Your task to perform on an android device: Open Google Chrome and click the shortcut for Amazon.com Image 0: 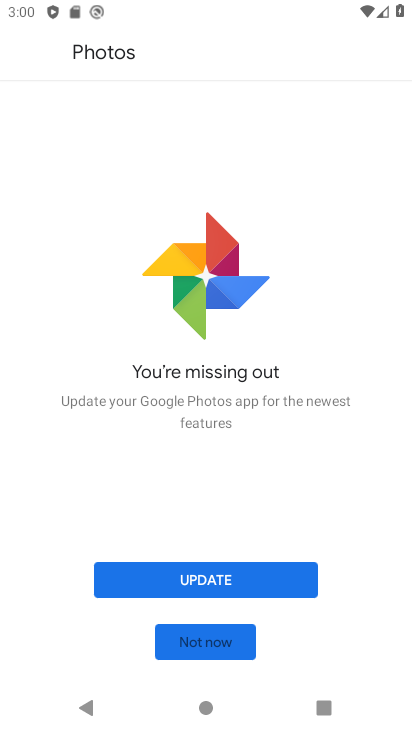
Step 0: press home button
Your task to perform on an android device: Open Google Chrome and click the shortcut for Amazon.com Image 1: 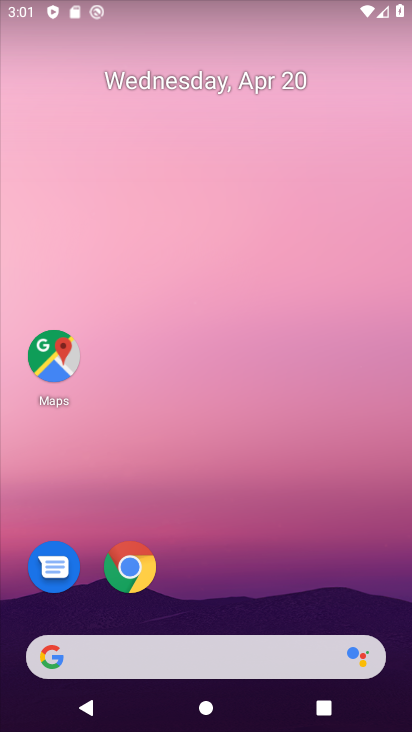
Step 1: click (130, 568)
Your task to perform on an android device: Open Google Chrome and click the shortcut for Amazon.com Image 2: 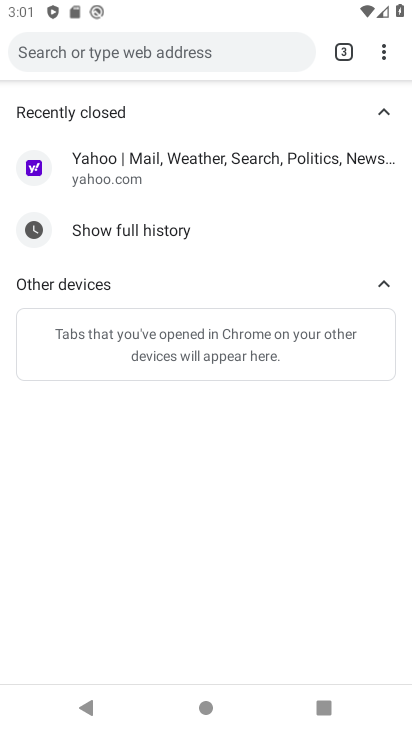
Step 2: press back button
Your task to perform on an android device: Open Google Chrome and click the shortcut for Amazon.com Image 3: 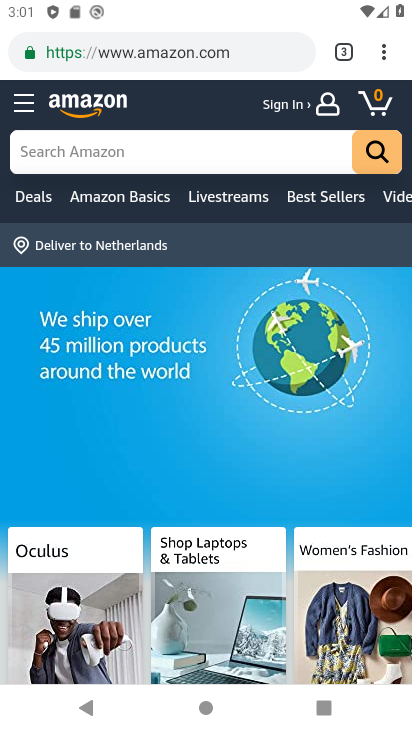
Step 3: click (389, 49)
Your task to perform on an android device: Open Google Chrome and click the shortcut for Amazon.com Image 4: 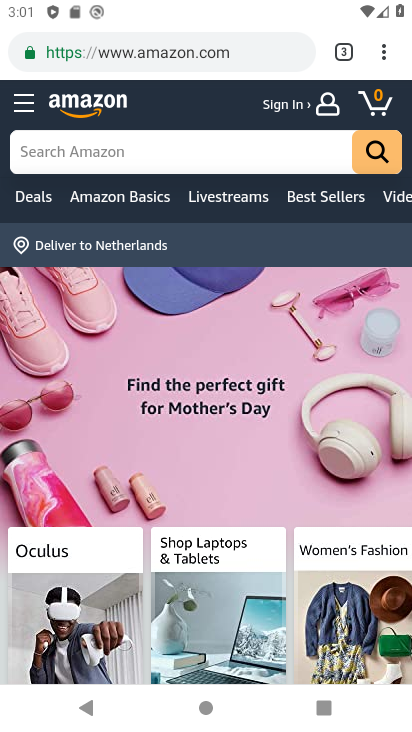
Step 4: click (383, 58)
Your task to perform on an android device: Open Google Chrome and click the shortcut for Amazon.com Image 5: 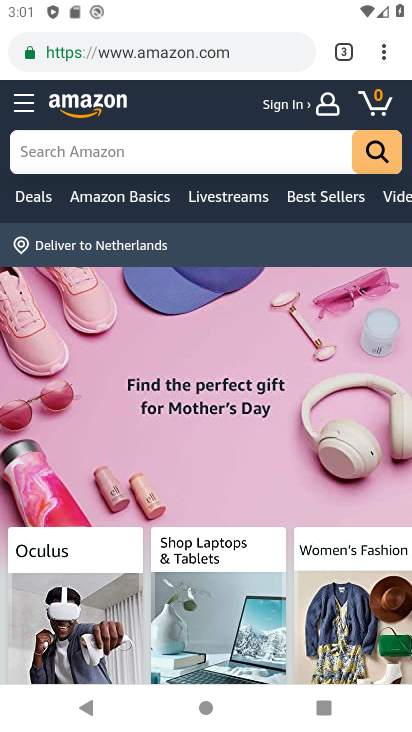
Step 5: click (385, 46)
Your task to perform on an android device: Open Google Chrome and click the shortcut for Amazon.com Image 6: 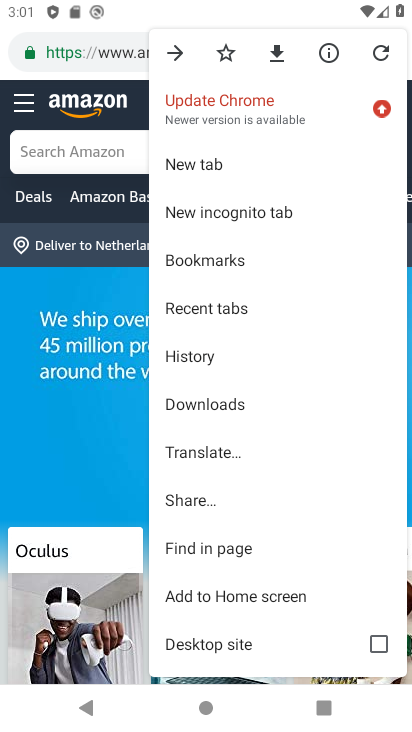
Step 6: click (206, 159)
Your task to perform on an android device: Open Google Chrome and click the shortcut for Amazon.com Image 7: 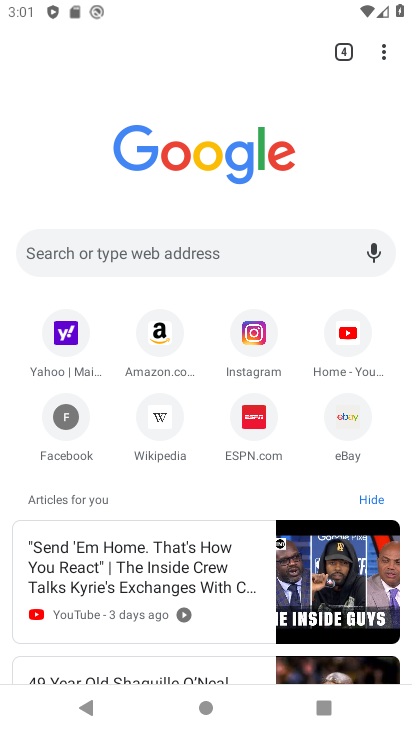
Step 7: click (163, 335)
Your task to perform on an android device: Open Google Chrome and click the shortcut for Amazon.com Image 8: 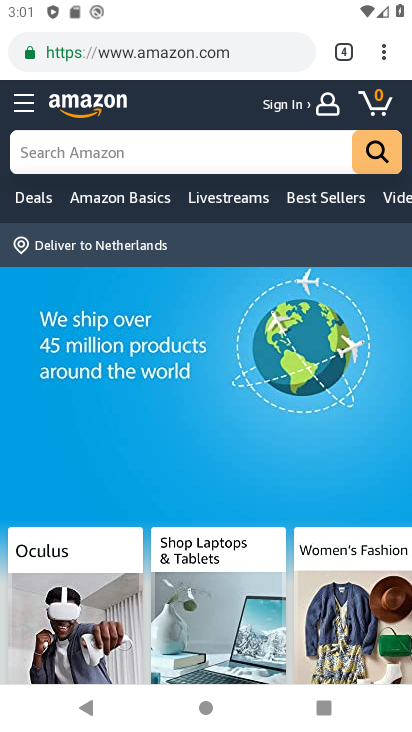
Step 8: task complete